Your task to perform on an android device: manage bookmarks in the chrome app Image 0: 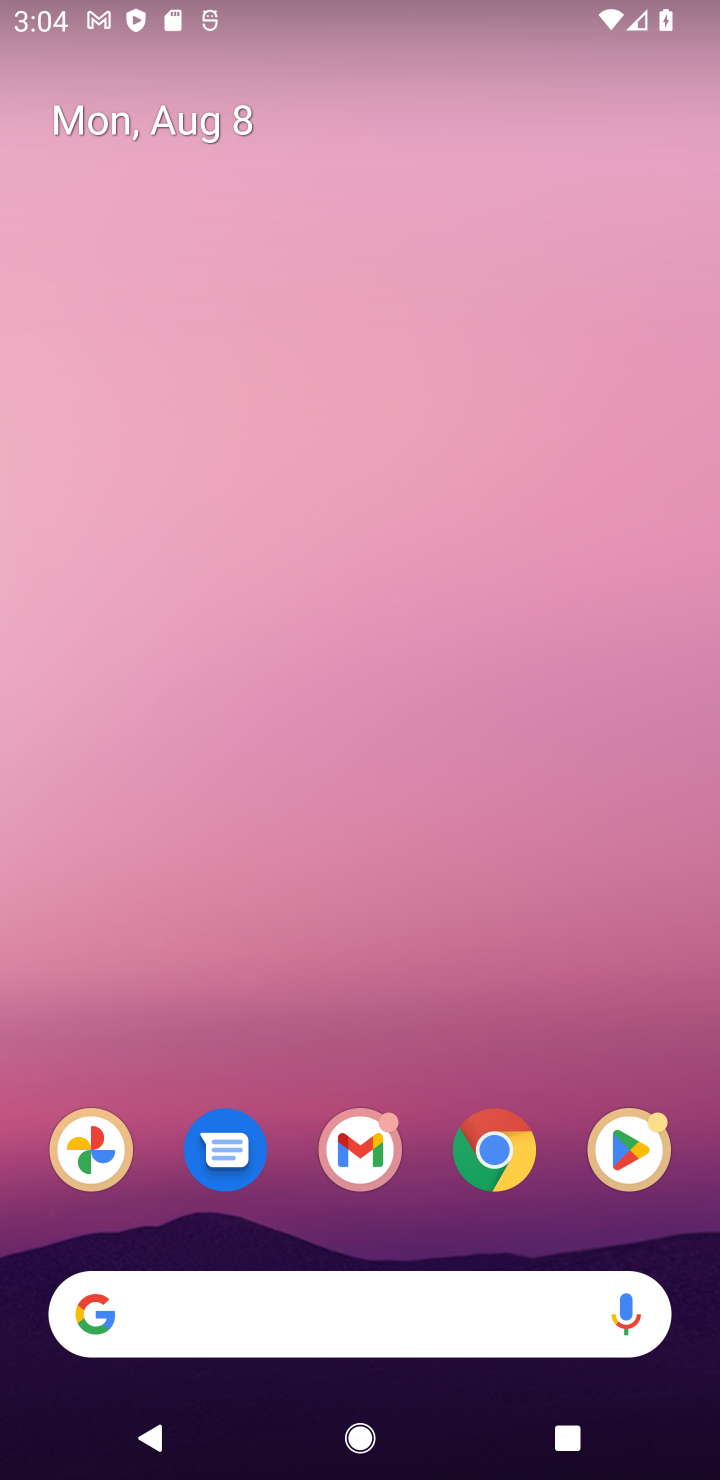
Step 0: click (532, 1137)
Your task to perform on an android device: manage bookmarks in the chrome app Image 1: 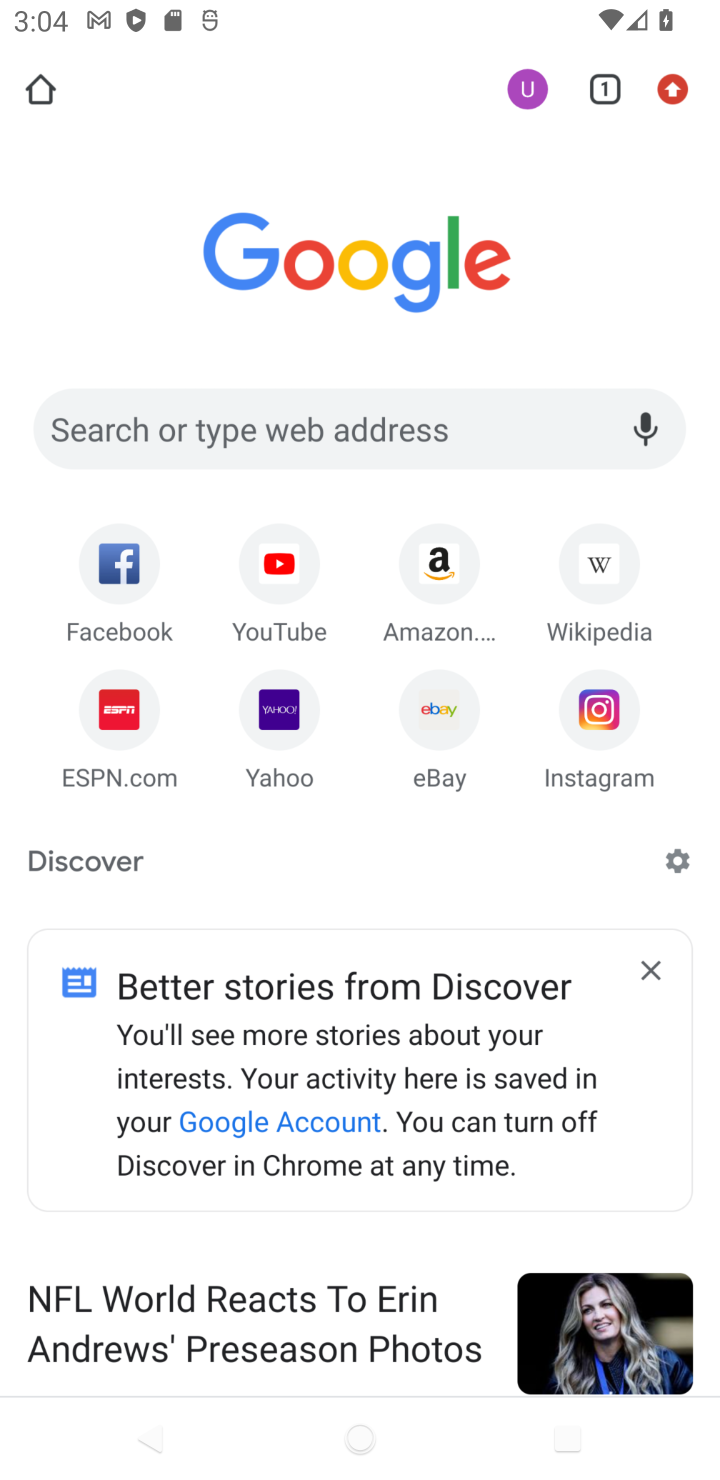
Step 1: task complete